Your task to perform on an android device: What is the recent news? Image 0: 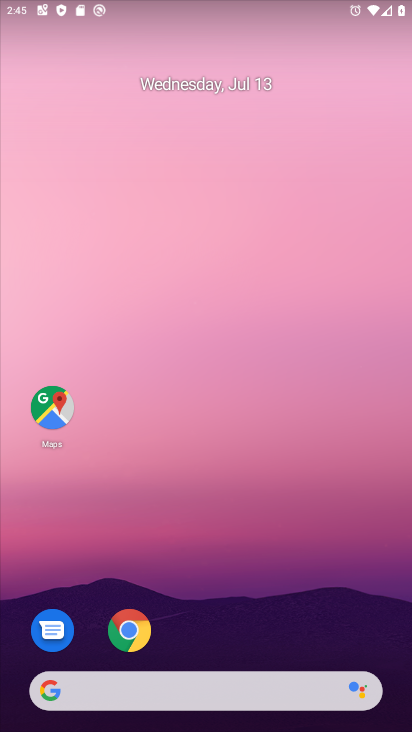
Step 0: drag from (0, 248) to (410, 324)
Your task to perform on an android device: What is the recent news? Image 1: 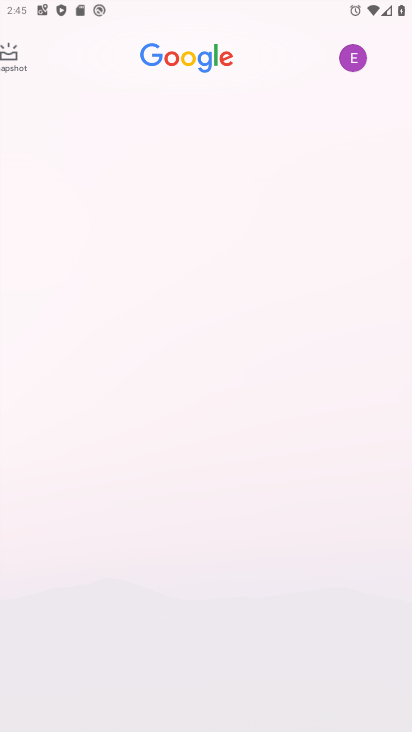
Step 1: task complete